Your task to perform on an android device: change your default location settings in chrome Image 0: 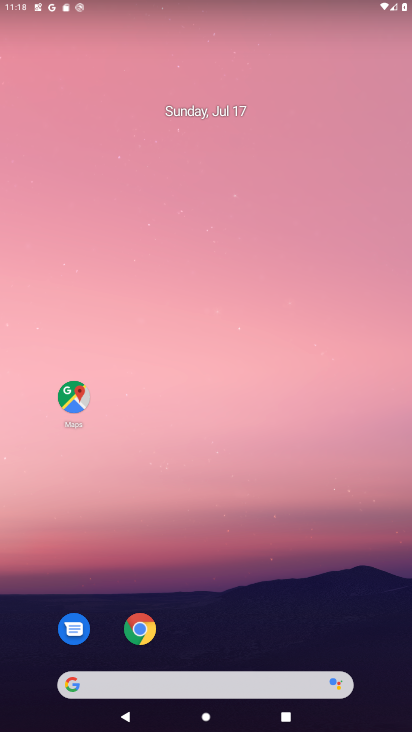
Step 0: click (141, 629)
Your task to perform on an android device: change your default location settings in chrome Image 1: 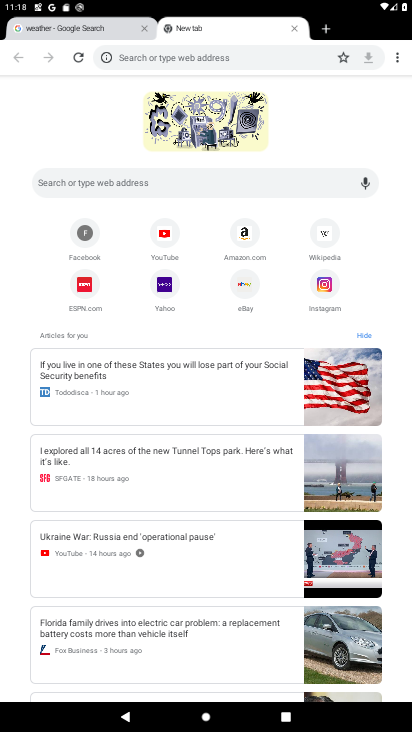
Step 1: click (398, 57)
Your task to perform on an android device: change your default location settings in chrome Image 2: 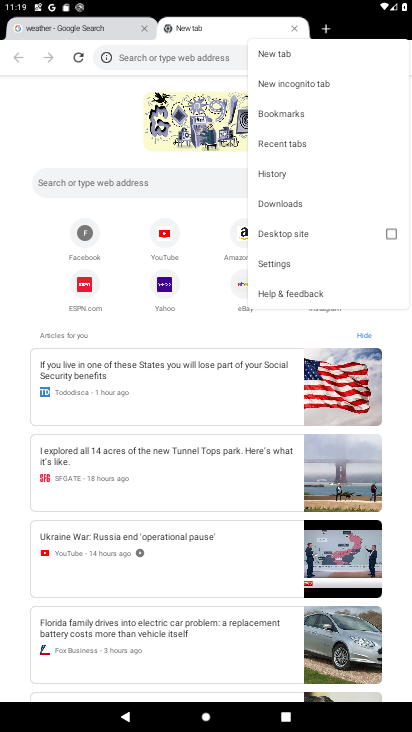
Step 2: click (280, 268)
Your task to perform on an android device: change your default location settings in chrome Image 3: 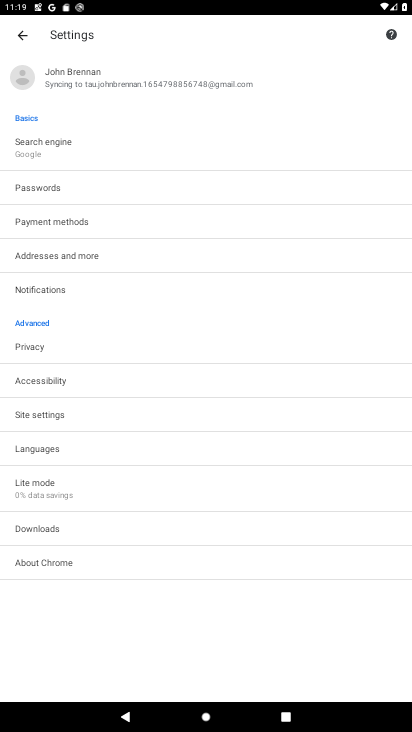
Step 3: click (48, 415)
Your task to perform on an android device: change your default location settings in chrome Image 4: 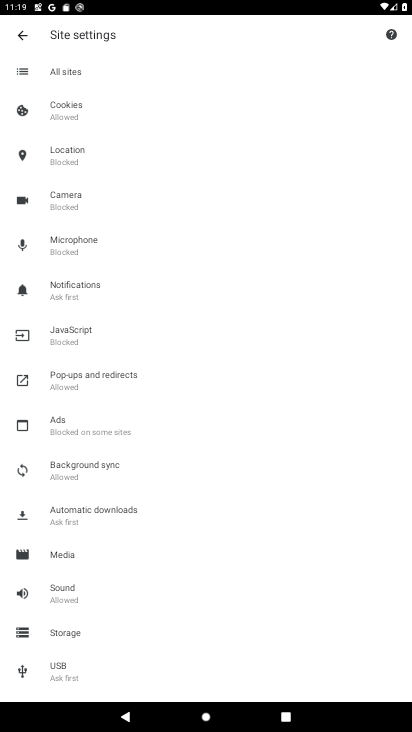
Step 4: click (61, 170)
Your task to perform on an android device: change your default location settings in chrome Image 5: 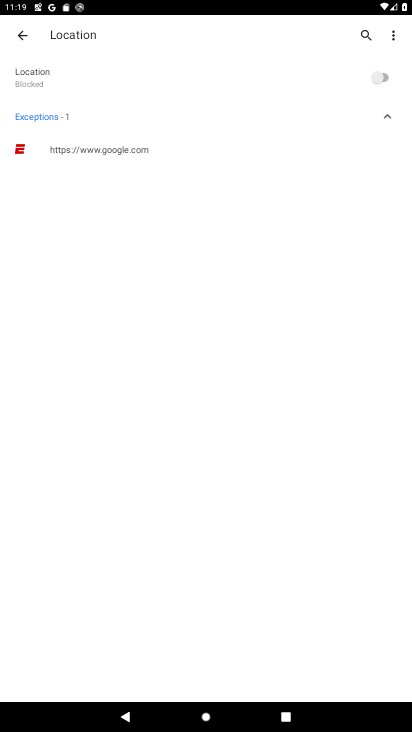
Step 5: click (380, 80)
Your task to perform on an android device: change your default location settings in chrome Image 6: 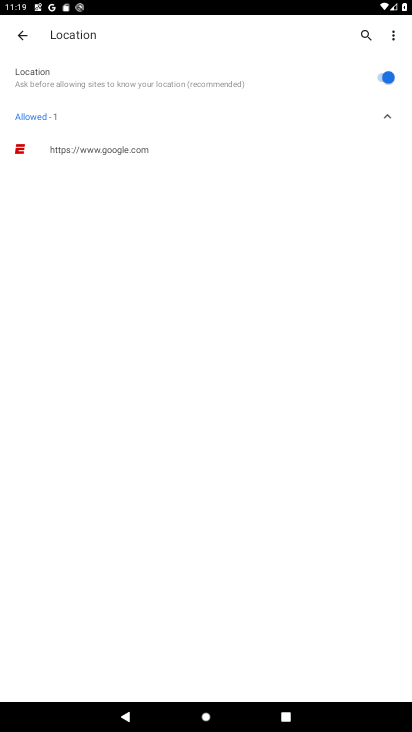
Step 6: task complete